Your task to perform on an android device: Open ESPN.com Image 0: 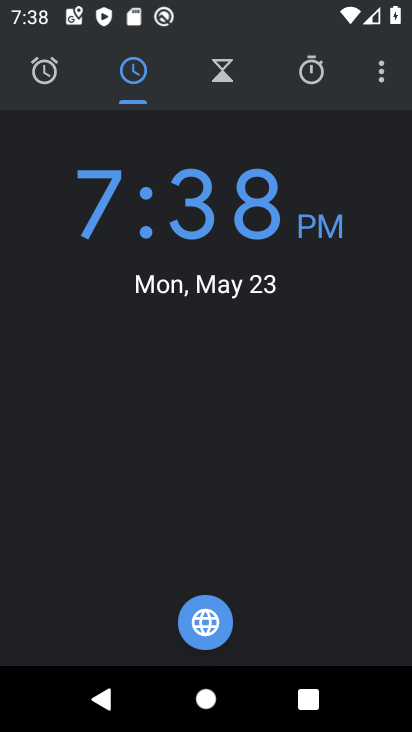
Step 0: press home button
Your task to perform on an android device: Open ESPN.com Image 1: 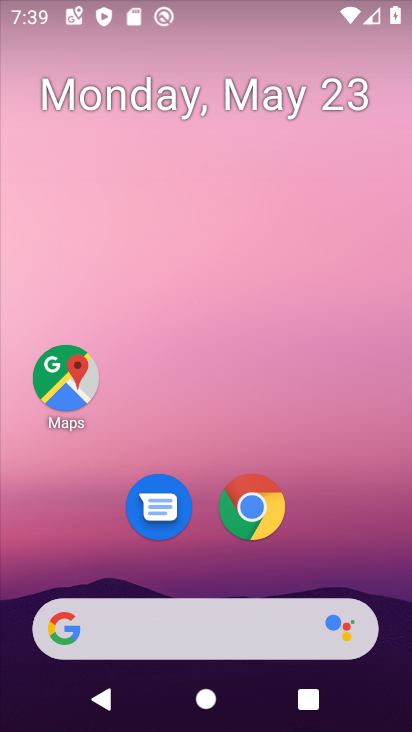
Step 1: drag from (306, 534) to (328, 176)
Your task to perform on an android device: Open ESPN.com Image 2: 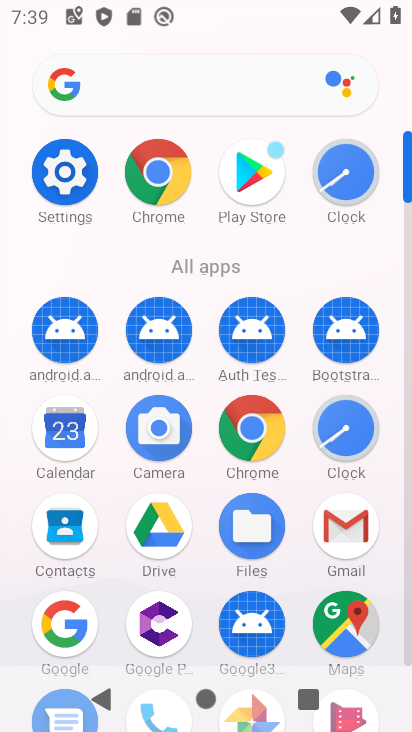
Step 2: click (229, 412)
Your task to perform on an android device: Open ESPN.com Image 3: 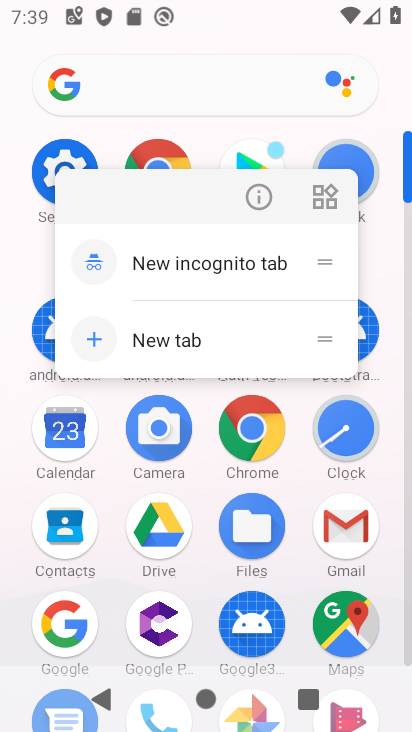
Step 3: click (238, 454)
Your task to perform on an android device: Open ESPN.com Image 4: 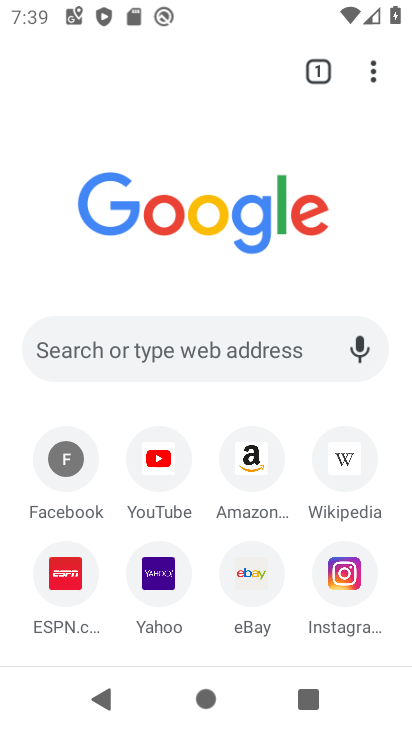
Step 4: click (227, 351)
Your task to perform on an android device: Open ESPN.com Image 5: 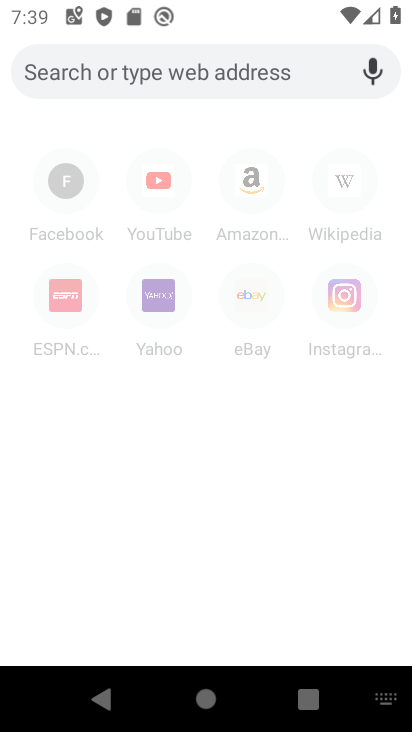
Step 5: type "espn.cpm"
Your task to perform on an android device: Open ESPN.com Image 6: 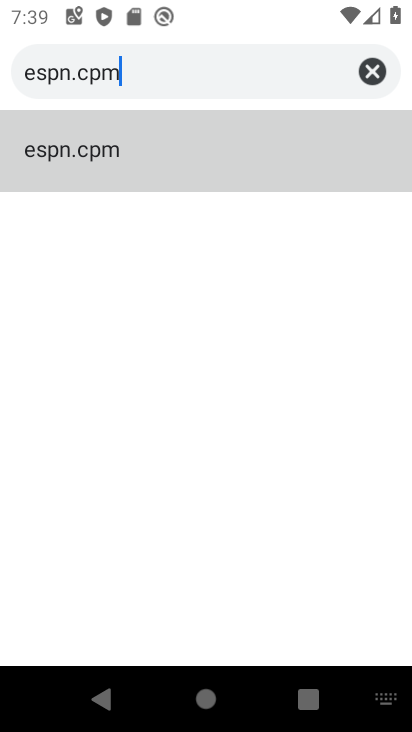
Step 6: click (382, 65)
Your task to perform on an android device: Open ESPN.com Image 7: 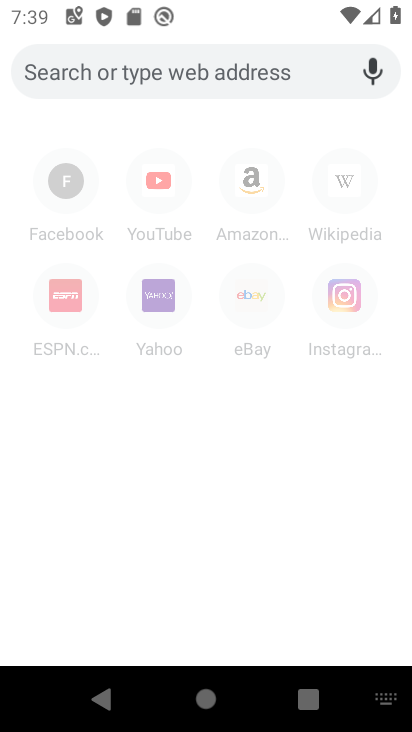
Step 7: type "espn.com"
Your task to perform on an android device: Open ESPN.com Image 8: 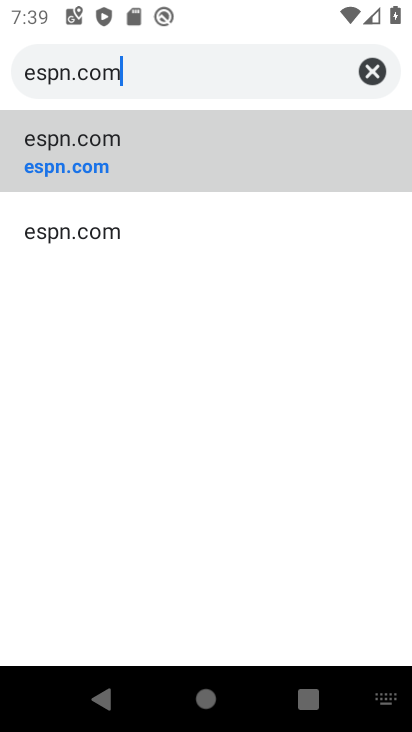
Step 8: click (211, 164)
Your task to perform on an android device: Open ESPN.com Image 9: 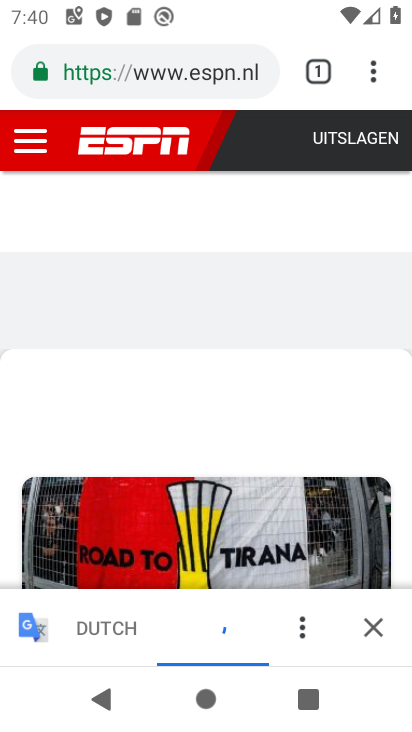
Step 9: task complete